Your task to perform on an android device: set default search engine in the chrome app Image 0: 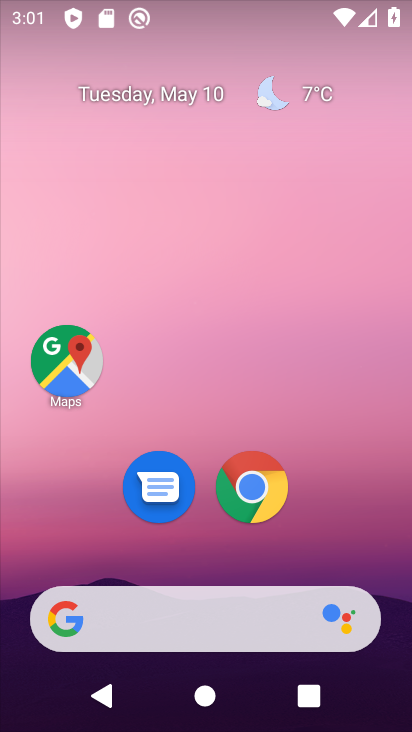
Step 0: click (260, 481)
Your task to perform on an android device: set default search engine in the chrome app Image 1: 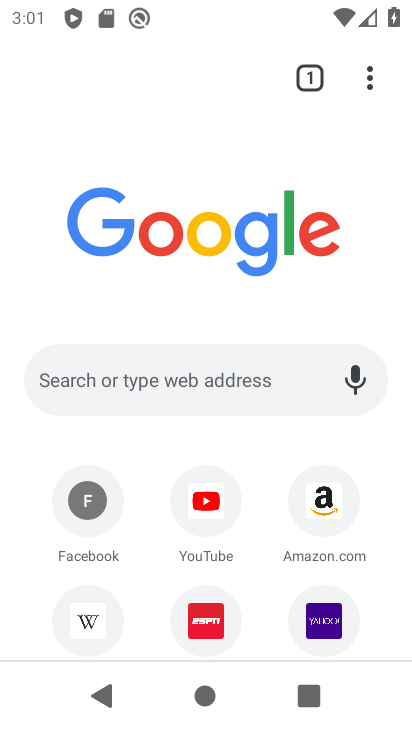
Step 1: drag from (374, 83) to (189, 555)
Your task to perform on an android device: set default search engine in the chrome app Image 2: 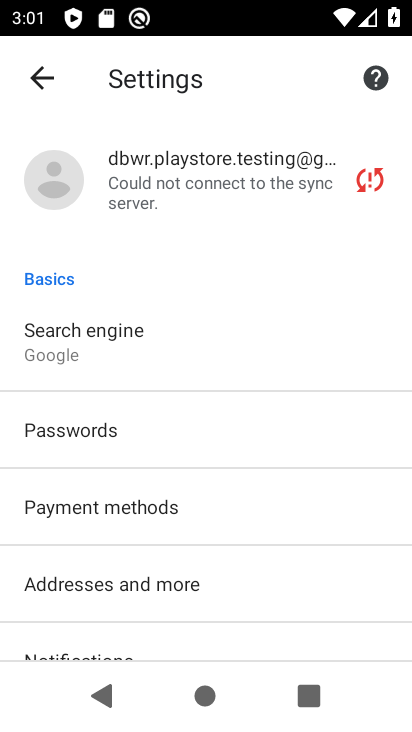
Step 2: click (126, 325)
Your task to perform on an android device: set default search engine in the chrome app Image 3: 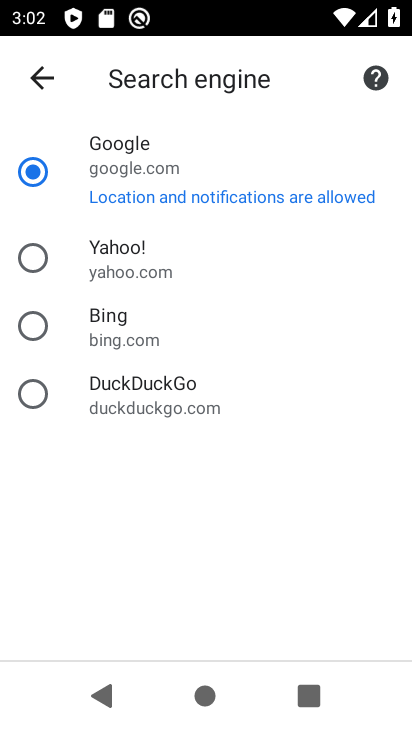
Step 3: task complete